Your task to perform on an android device: Show me popular games on the Play Store Image 0: 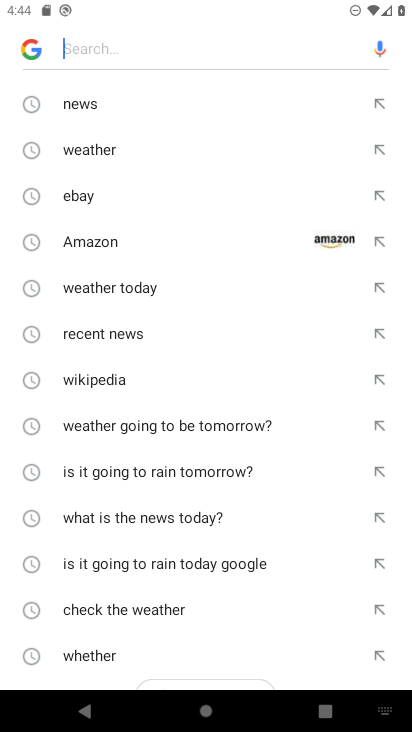
Step 0: press home button
Your task to perform on an android device: Show me popular games on the Play Store Image 1: 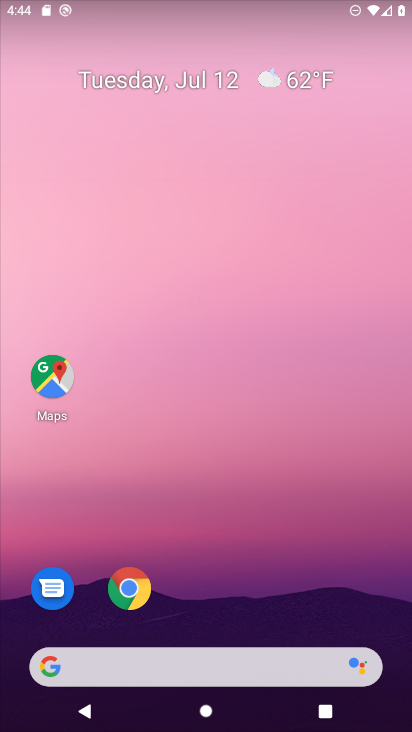
Step 1: drag from (200, 560) to (245, 82)
Your task to perform on an android device: Show me popular games on the Play Store Image 2: 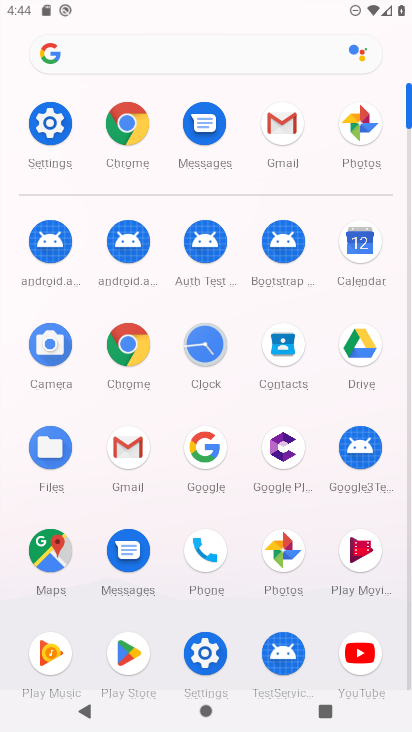
Step 2: click (132, 663)
Your task to perform on an android device: Show me popular games on the Play Store Image 3: 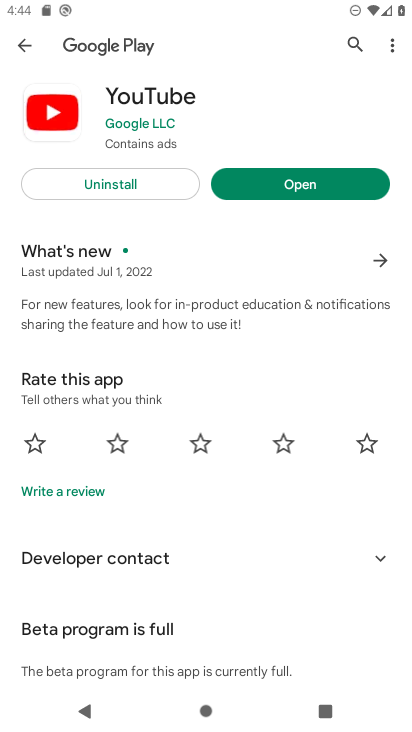
Step 3: click (21, 38)
Your task to perform on an android device: Show me popular games on the Play Store Image 4: 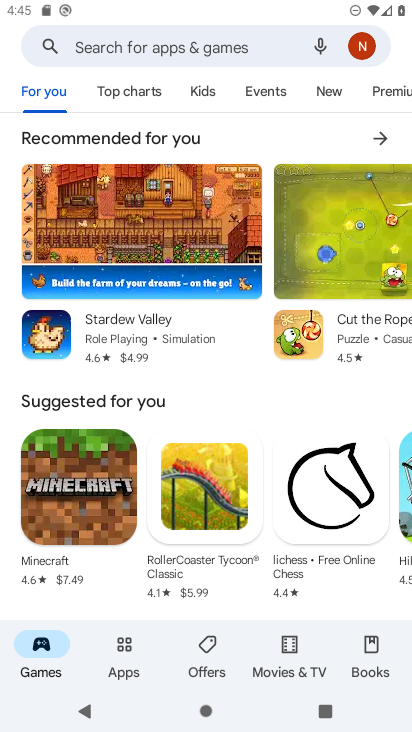
Step 4: click (120, 89)
Your task to perform on an android device: Show me popular games on the Play Store Image 5: 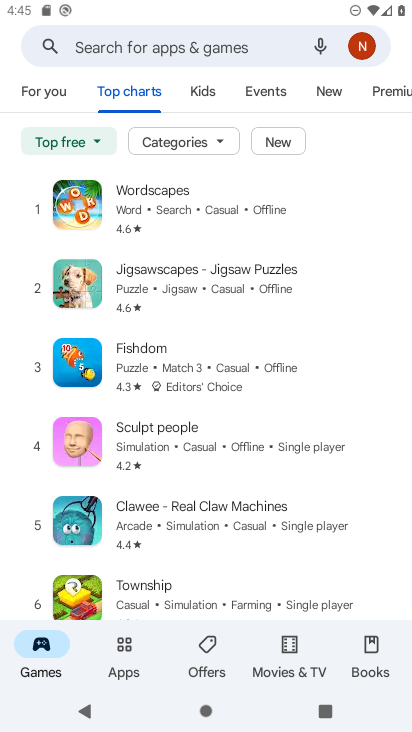
Step 5: task complete